Your task to perform on an android device: see tabs open on other devices in the chrome app Image 0: 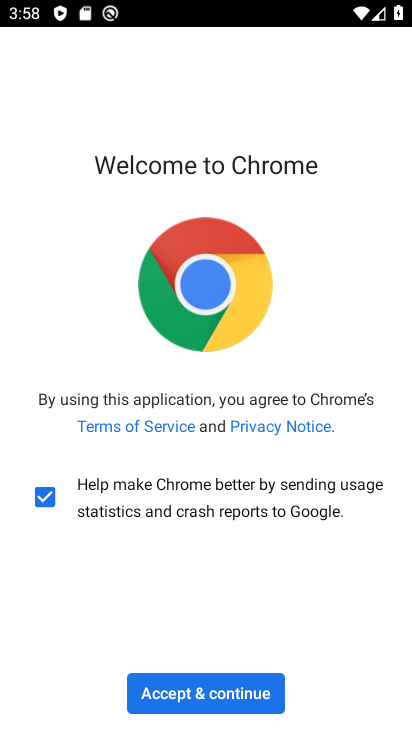
Step 0: click (221, 686)
Your task to perform on an android device: see tabs open on other devices in the chrome app Image 1: 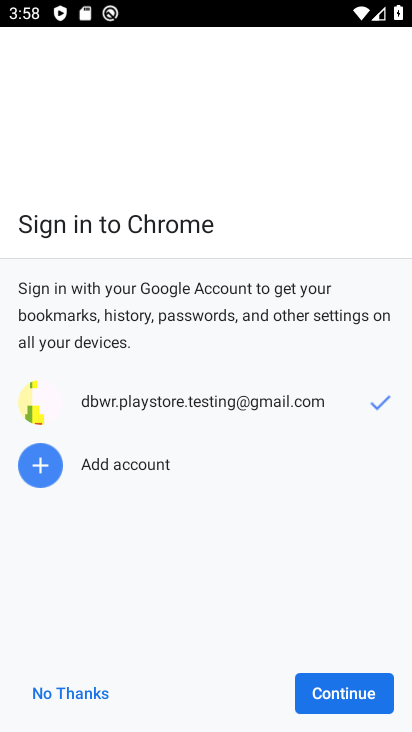
Step 1: click (327, 693)
Your task to perform on an android device: see tabs open on other devices in the chrome app Image 2: 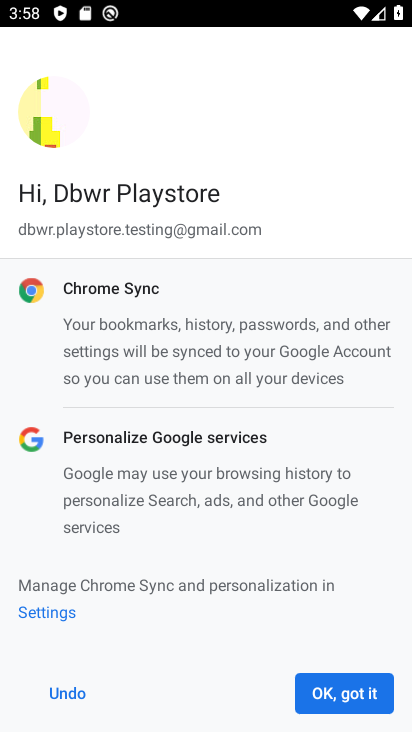
Step 2: click (327, 693)
Your task to perform on an android device: see tabs open on other devices in the chrome app Image 3: 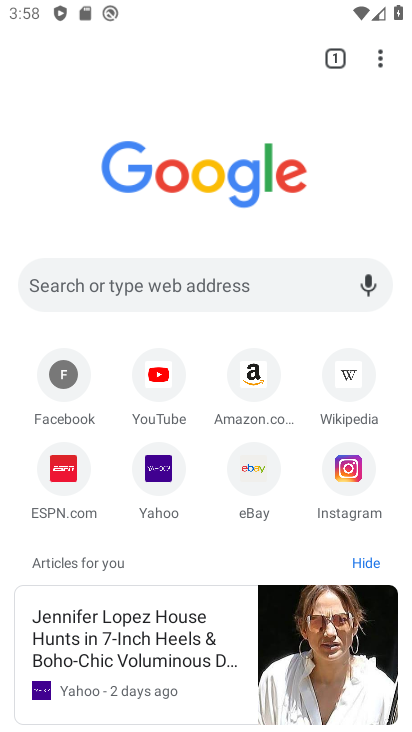
Step 3: click (381, 59)
Your task to perform on an android device: see tabs open on other devices in the chrome app Image 4: 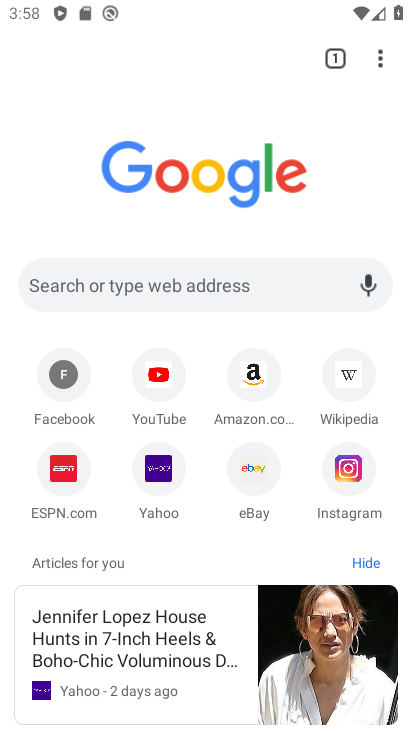
Step 4: click (378, 60)
Your task to perform on an android device: see tabs open on other devices in the chrome app Image 5: 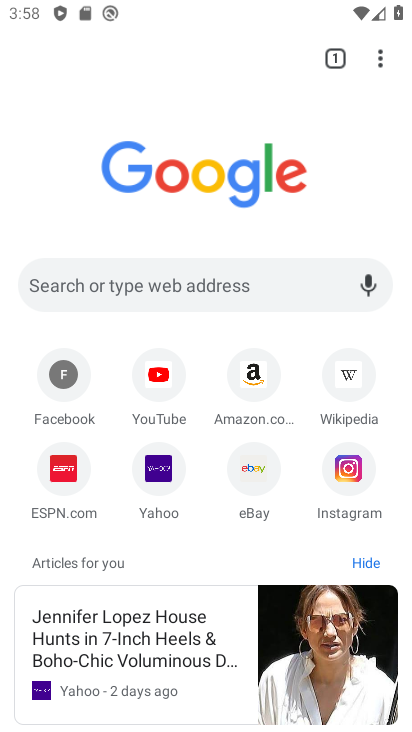
Step 5: click (384, 58)
Your task to perform on an android device: see tabs open on other devices in the chrome app Image 6: 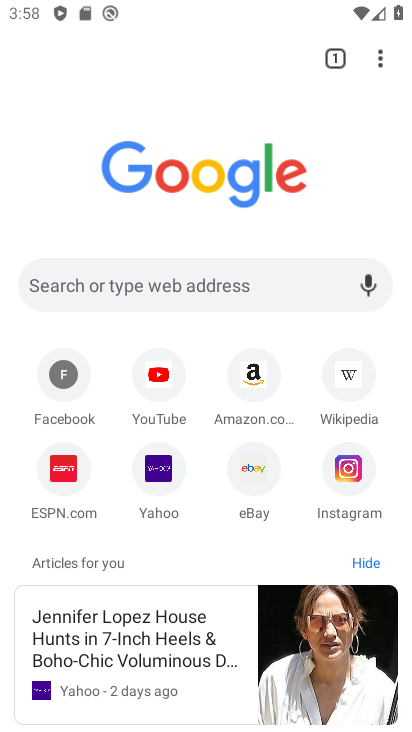
Step 6: click (389, 52)
Your task to perform on an android device: see tabs open on other devices in the chrome app Image 7: 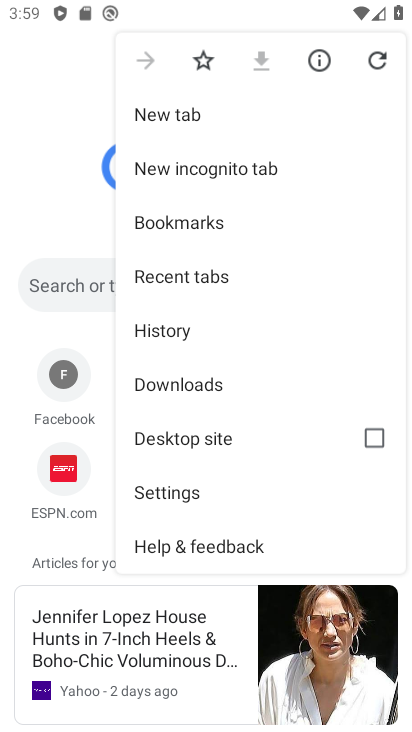
Step 7: click (202, 277)
Your task to perform on an android device: see tabs open on other devices in the chrome app Image 8: 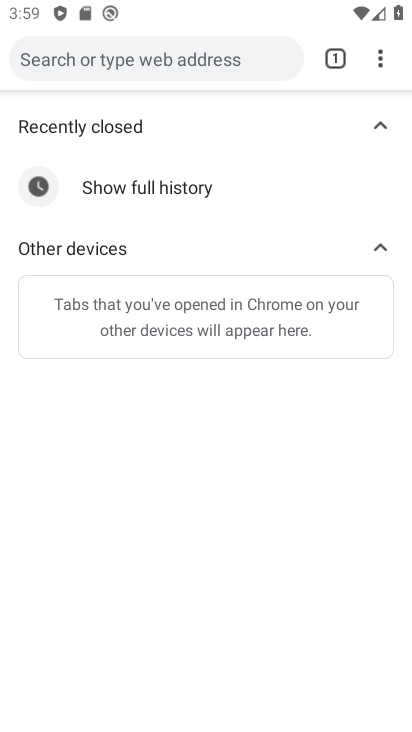
Step 8: click (373, 121)
Your task to perform on an android device: see tabs open on other devices in the chrome app Image 9: 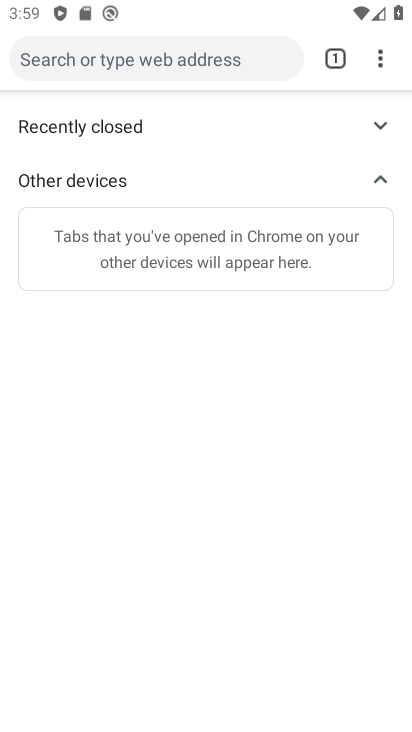
Step 9: task complete